Your task to perform on an android device: What is the recent news? Image 0: 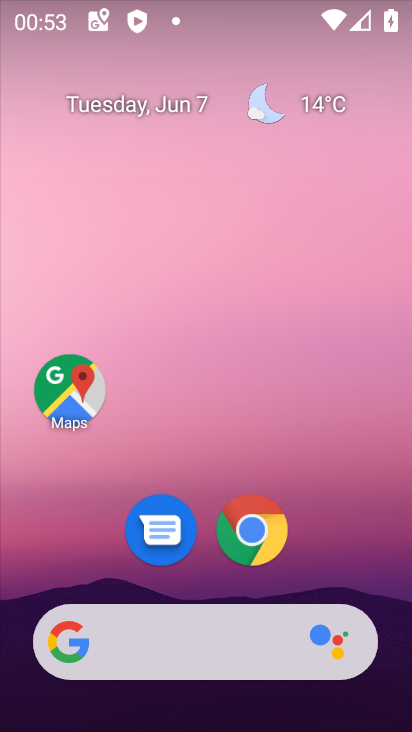
Step 0: click (244, 522)
Your task to perform on an android device: What is the recent news? Image 1: 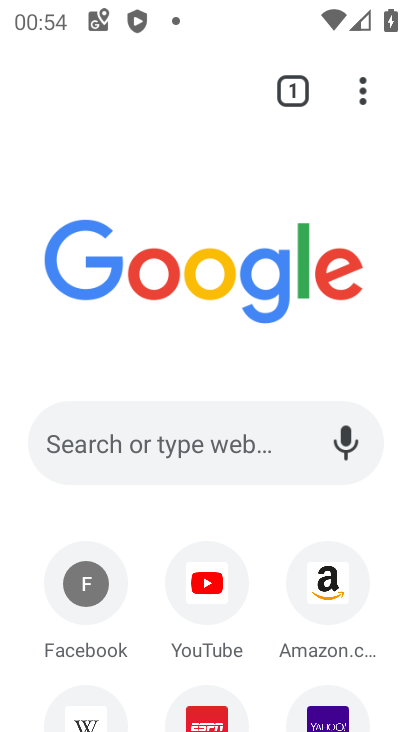
Step 1: click (153, 437)
Your task to perform on an android device: What is the recent news? Image 2: 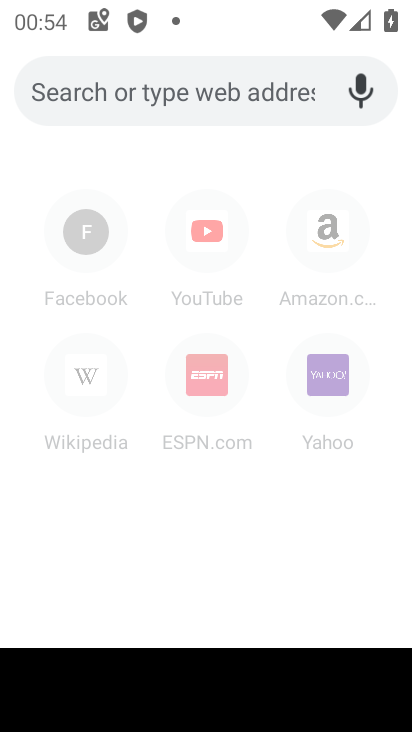
Step 2: type "What is the recent news?"
Your task to perform on an android device: What is the recent news? Image 3: 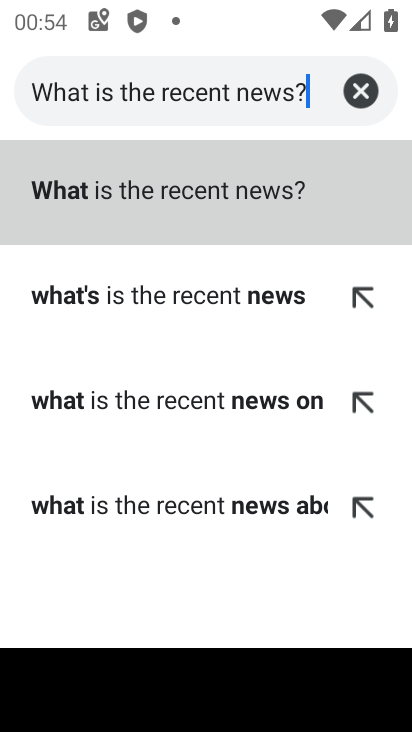
Step 3: click (252, 170)
Your task to perform on an android device: What is the recent news? Image 4: 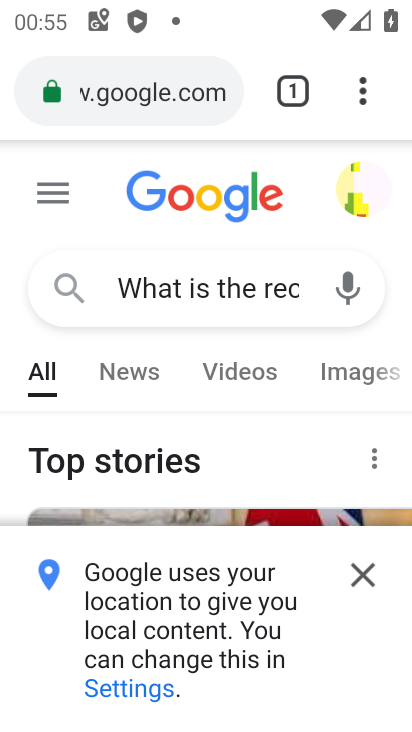
Step 4: task complete